Your task to perform on an android device: Go to notification settings Image 0: 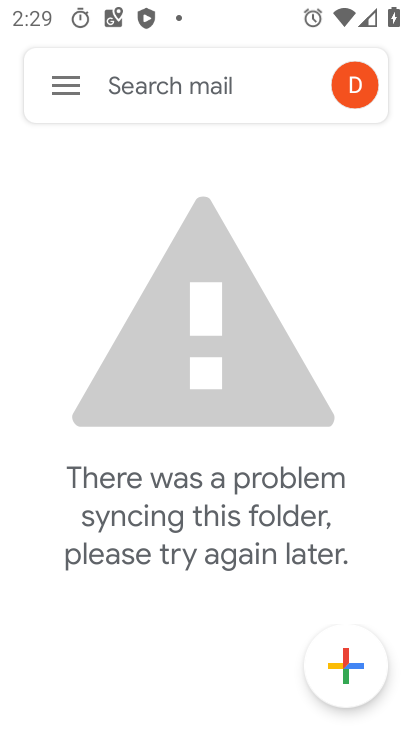
Step 0: press back button
Your task to perform on an android device: Go to notification settings Image 1: 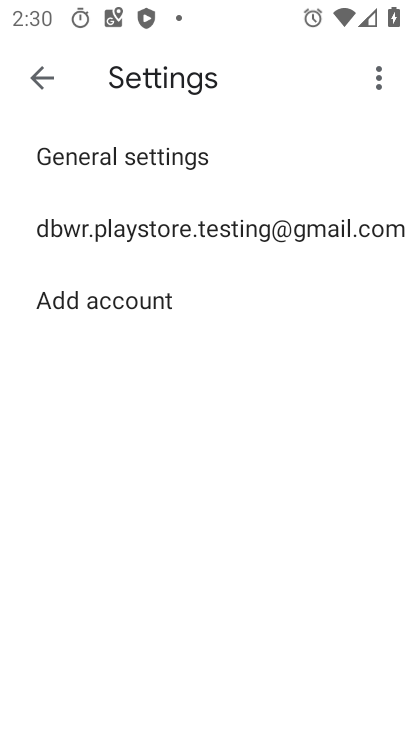
Step 1: press back button
Your task to perform on an android device: Go to notification settings Image 2: 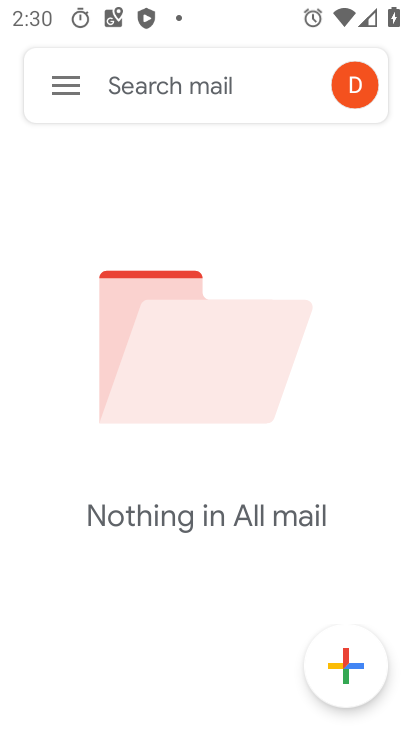
Step 2: press back button
Your task to perform on an android device: Go to notification settings Image 3: 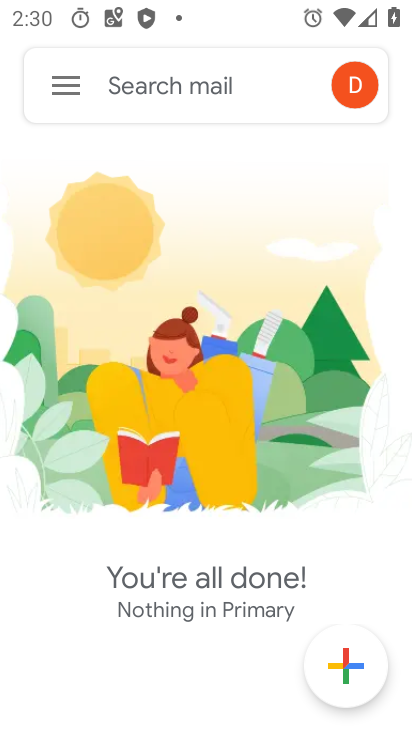
Step 3: press back button
Your task to perform on an android device: Go to notification settings Image 4: 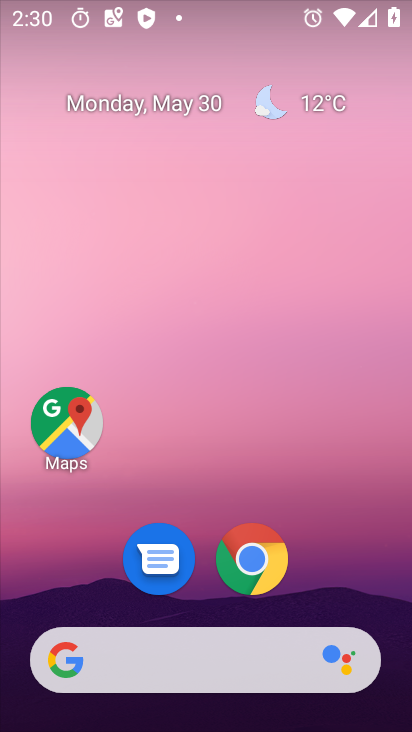
Step 4: drag from (236, 459) to (304, 0)
Your task to perform on an android device: Go to notification settings Image 5: 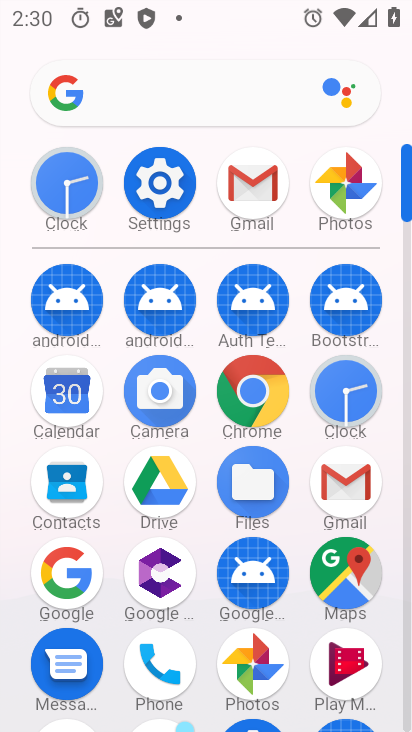
Step 5: click (153, 171)
Your task to perform on an android device: Go to notification settings Image 6: 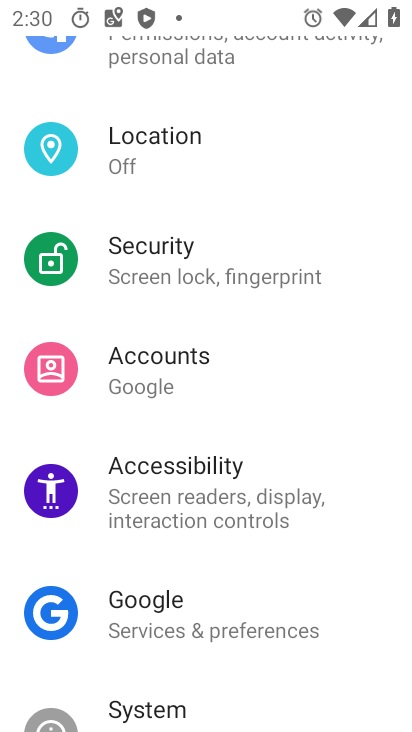
Step 6: drag from (225, 184) to (185, 705)
Your task to perform on an android device: Go to notification settings Image 7: 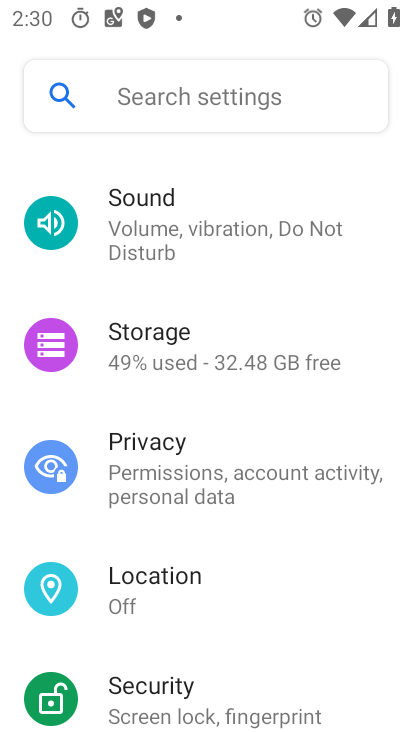
Step 7: drag from (247, 230) to (221, 703)
Your task to perform on an android device: Go to notification settings Image 8: 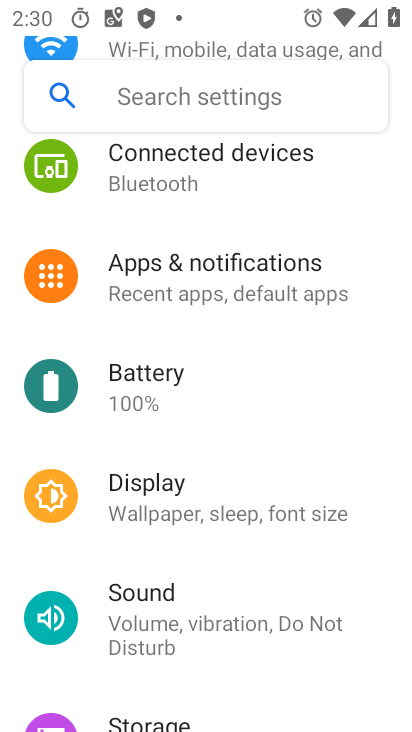
Step 8: click (164, 249)
Your task to perform on an android device: Go to notification settings Image 9: 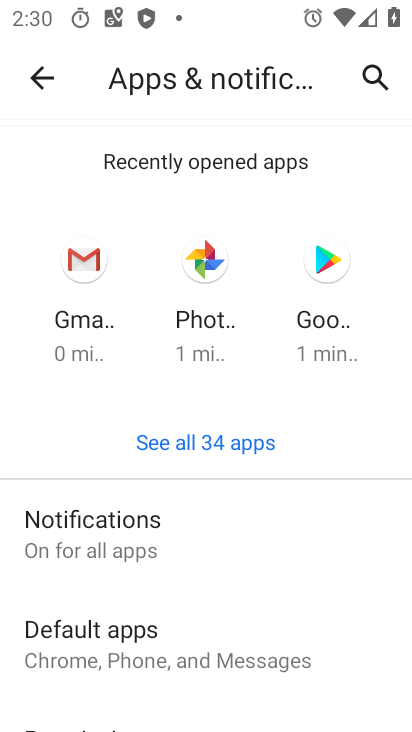
Step 9: click (159, 555)
Your task to perform on an android device: Go to notification settings Image 10: 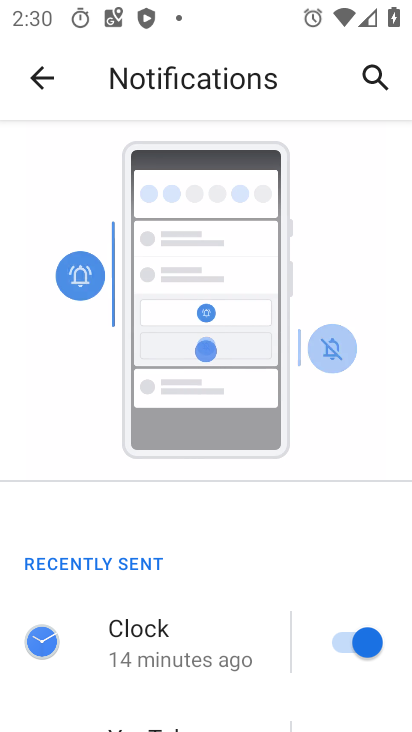
Step 10: task complete